Your task to perform on an android device: search for starred emails in the gmail app Image 0: 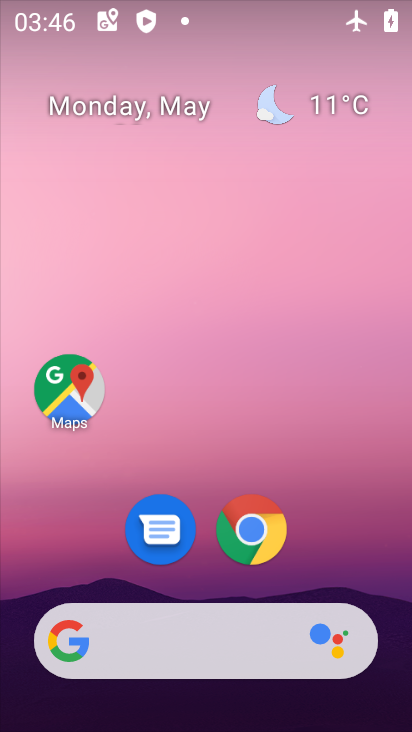
Step 0: drag from (354, 503) to (329, 339)
Your task to perform on an android device: search for starred emails in the gmail app Image 1: 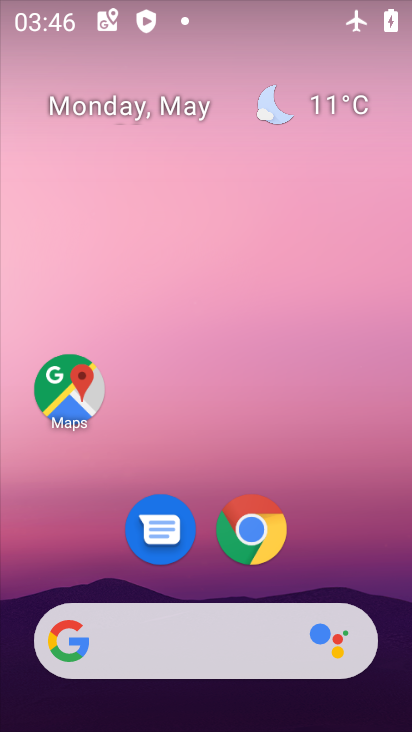
Step 1: drag from (347, 530) to (314, 120)
Your task to perform on an android device: search for starred emails in the gmail app Image 2: 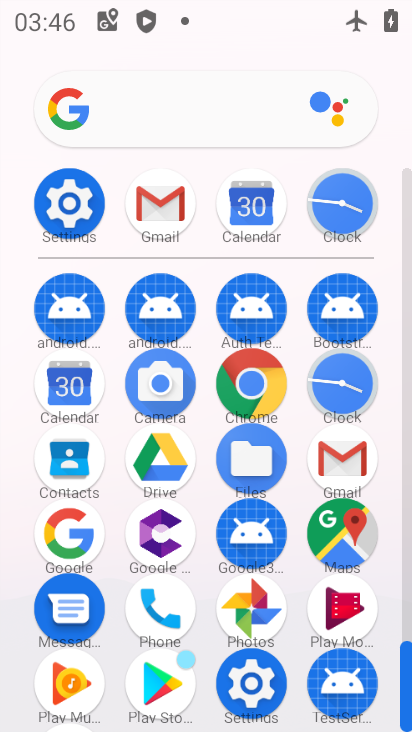
Step 2: click (354, 461)
Your task to perform on an android device: search for starred emails in the gmail app Image 3: 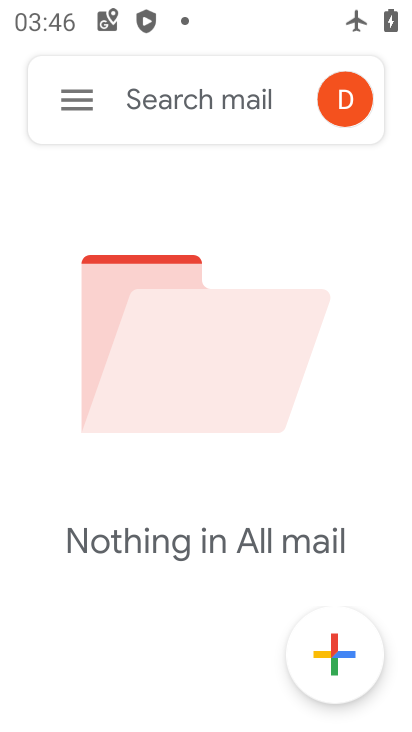
Step 3: click (66, 95)
Your task to perform on an android device: search for starred emails in the gmail app Image 4: 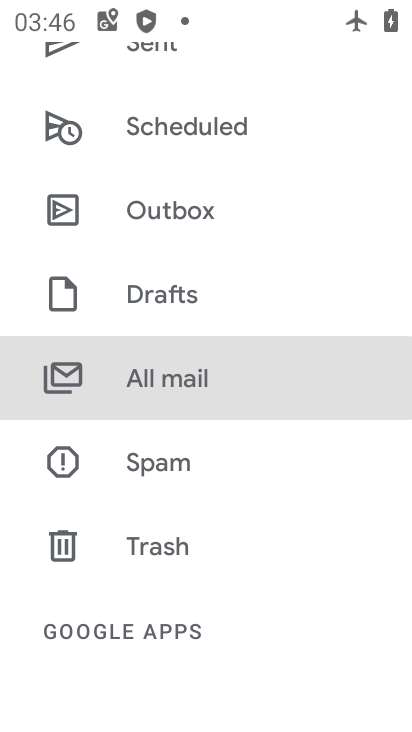
Step 4: drag from (204, 198) to (188, 514)
Your task to perform on an android device: search for starred emails in the gmail app Image 5: 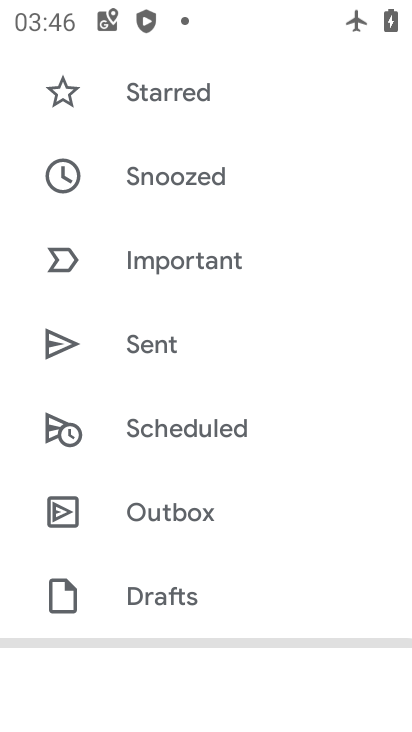
Step 5: click (159, 94)
Your task to perform on an android device: search for starred emails in the gmail app Image 6: 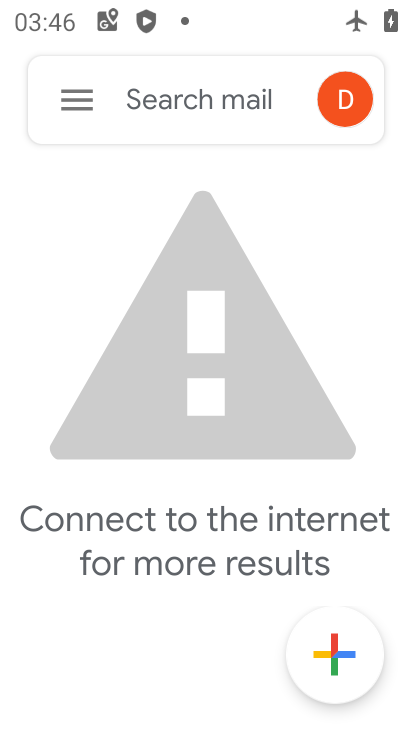
Step 6: task complete